Your task to perform on an android device: change the clock display to analog Image 0: 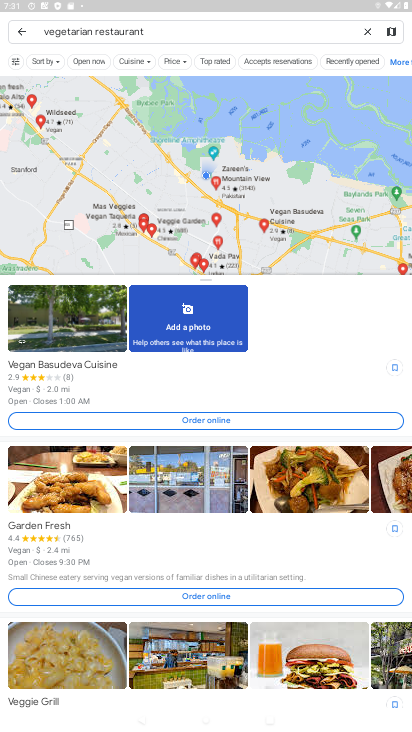
Step 0: press home button
Your task to perform on an android device: change the clock display to analog Image 1: 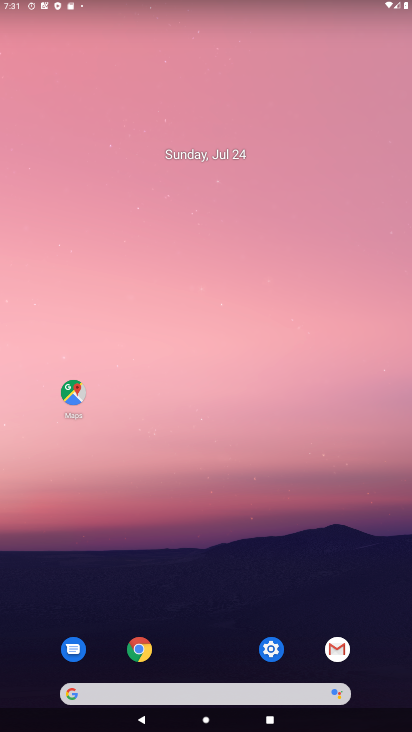
Step 1: click (270, 649)
Your task to perform on an android device: change the clock display to analog Image 2: 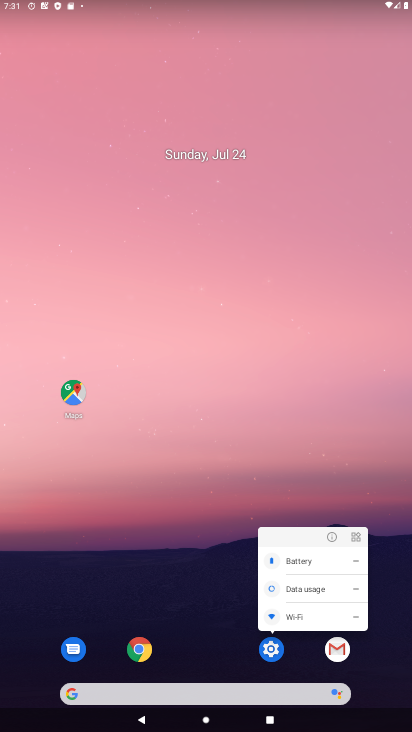
Step 2: click (270, 653)
Your task to perform on an android device: change the clock display to analog Image 3: 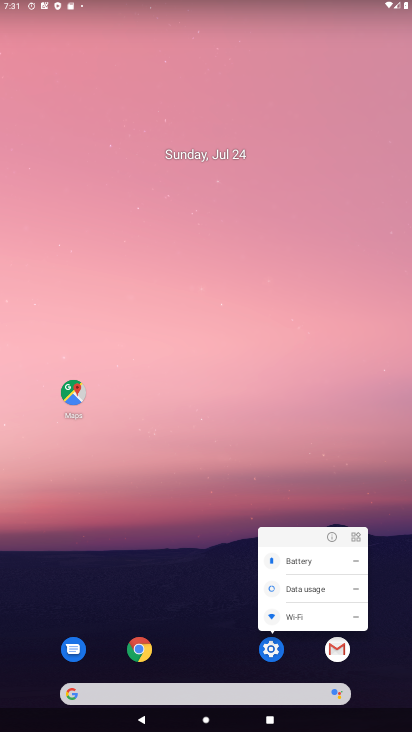
Step 3: click (281, 632)
Your task to perform on an android device: change the clock display to analog Image 4: 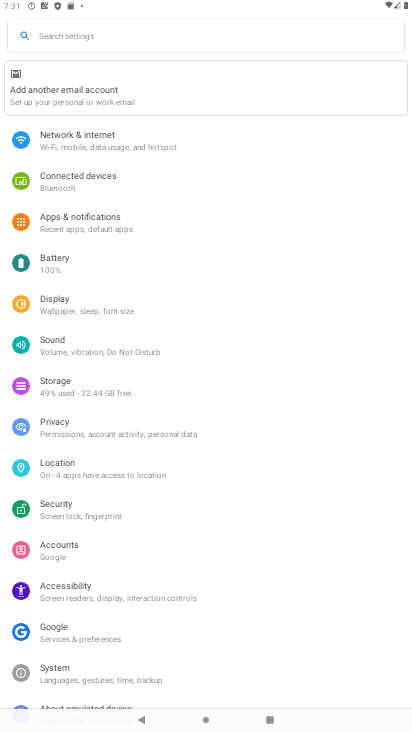
Step 4: click (76, 301)
Your task to perform on an android device: change the clock display to analog Image 5: 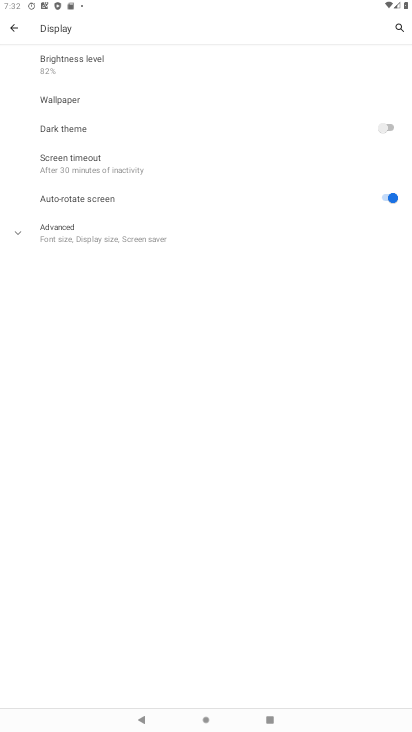
Step 5: task complete